Your task to perform on an android device: turn on showing notifications on the lock screen Image 0: 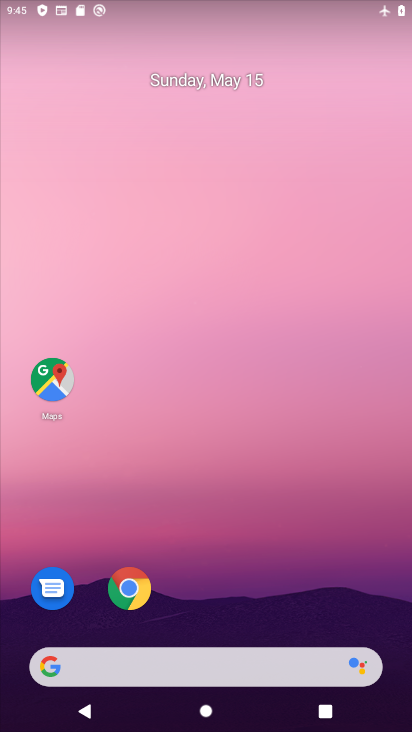
Step 0: click (262, 370)
Your task to perform on an android device: turn on showing notifications on the lock screen Image 1: 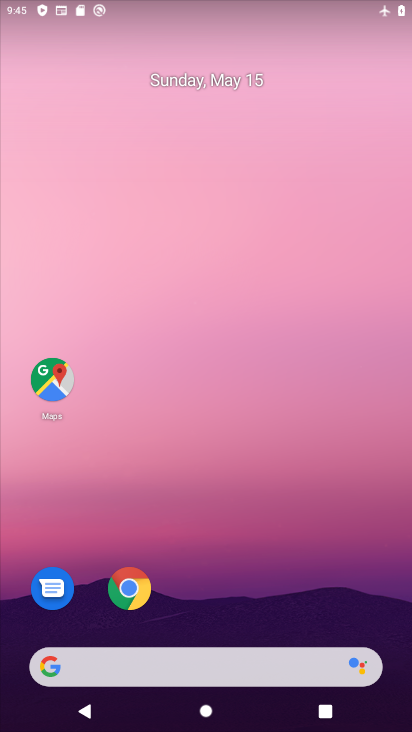
Step 1: drag from (232, 426) to (199, 86)
Your task to perform on an android device: turn on showing notifications on the lock screen Image 2: 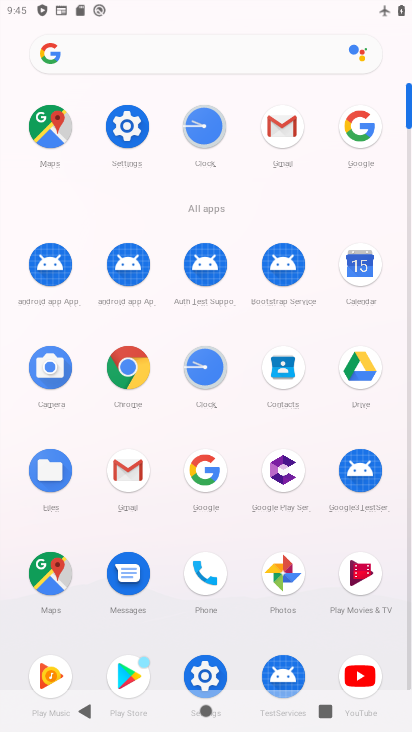
Step 2: click (125, 131)
Your task to perform on an android device: turn on showing notifications on the lock screen Image 3: 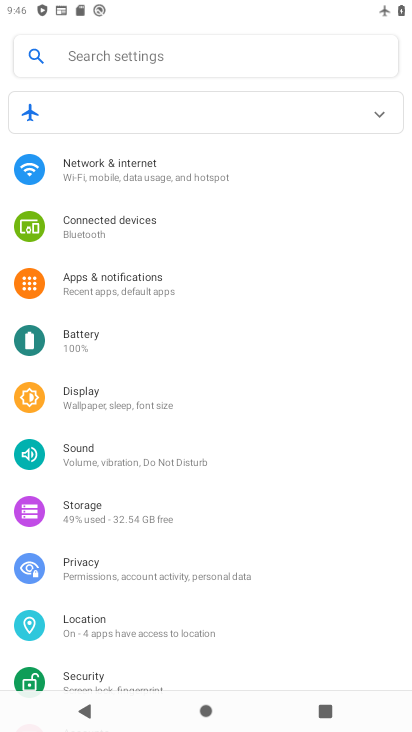
Step 3: drag from (167, 526) to (171, 180)
Your task to perform on an android device: turn on showing notifications on the lock screen Image 4: 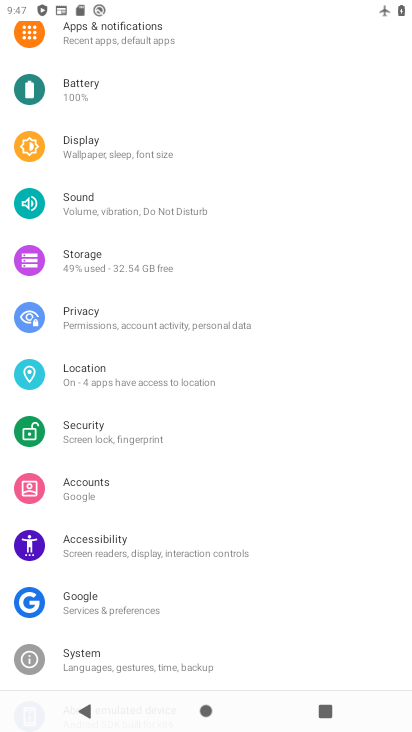
Step 4: click (102, 30)
Your task to perform on an android device: turn on showing notifications on the lock screen Image 5: 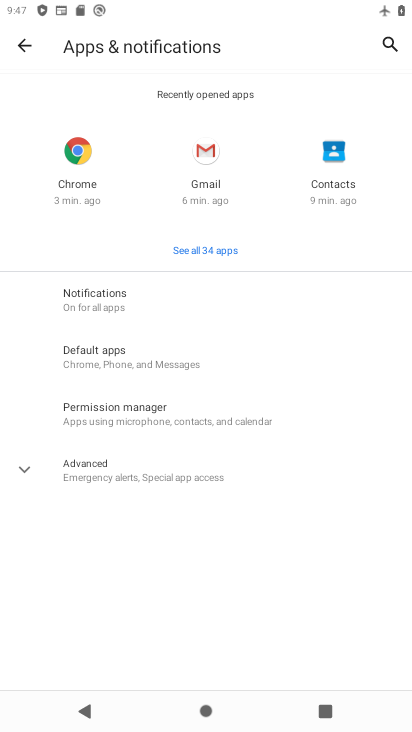
Step 5: click (150, 474)
Your task to perform on an android device: turn on showing notifications on the lock screen Image 6: 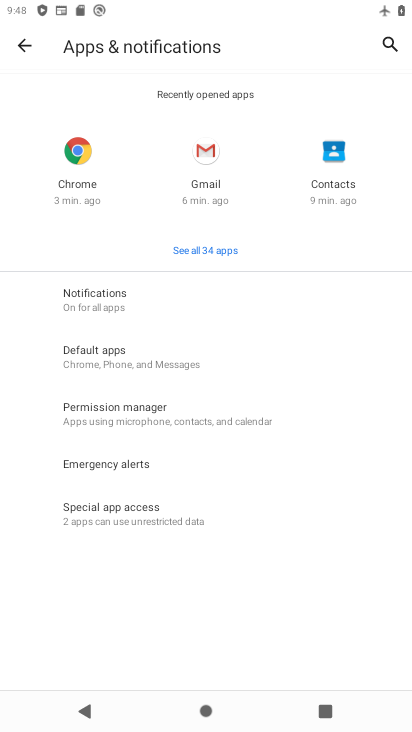
Step 6: click (127, 300)
Your task to perform on an android device: turn on showing notifications on the lock screen Image 7: 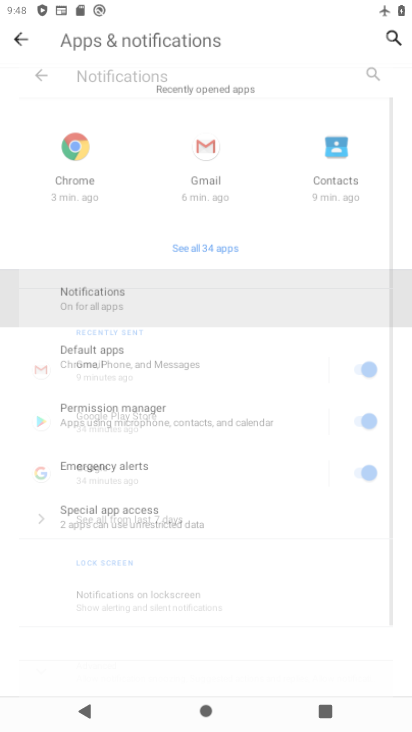
Step 7: click (107, 296)
Your task to perform on an android device: turn on showing notifications on the lock screen Image 8: 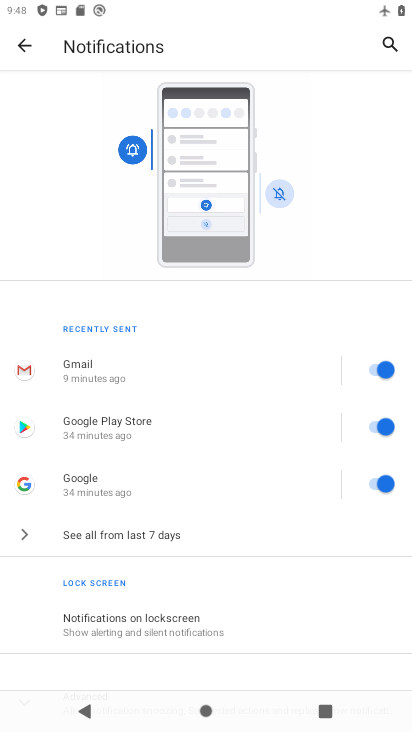
Step 8: click (207, 620)
Your task to perform on an android device: turn on showing notifications on the lock screen Image 9: 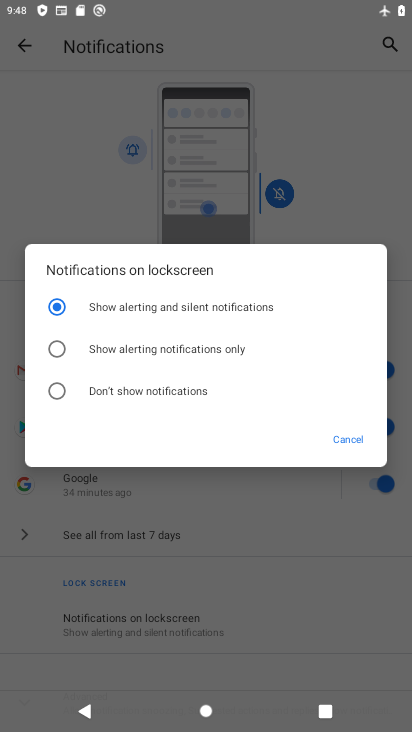
Step 9: task complete